Your task to perform on an android device: Open display settings Image 0: 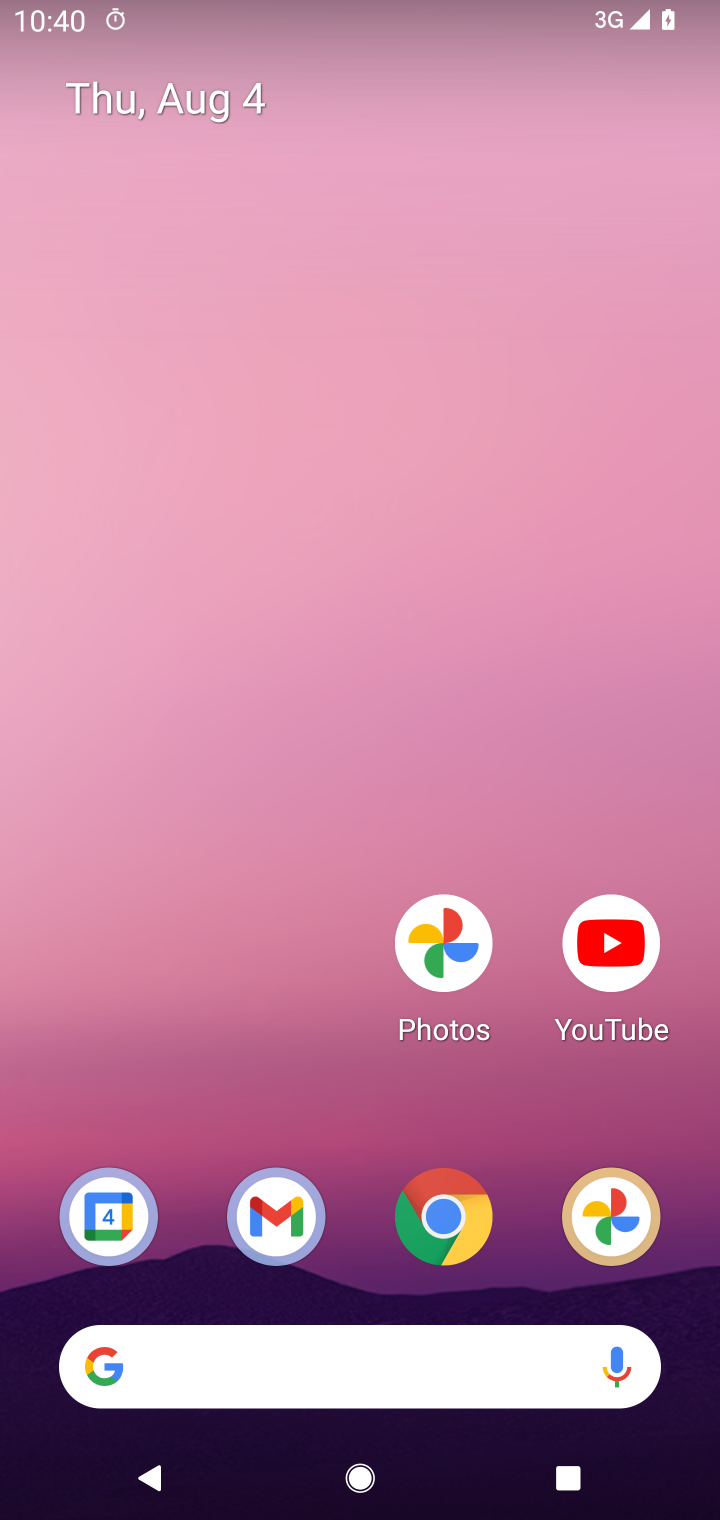
Step 0: drag from (367, 1178) to (374, 287)
Your task to perform on an android device: Open display settings Image 1: 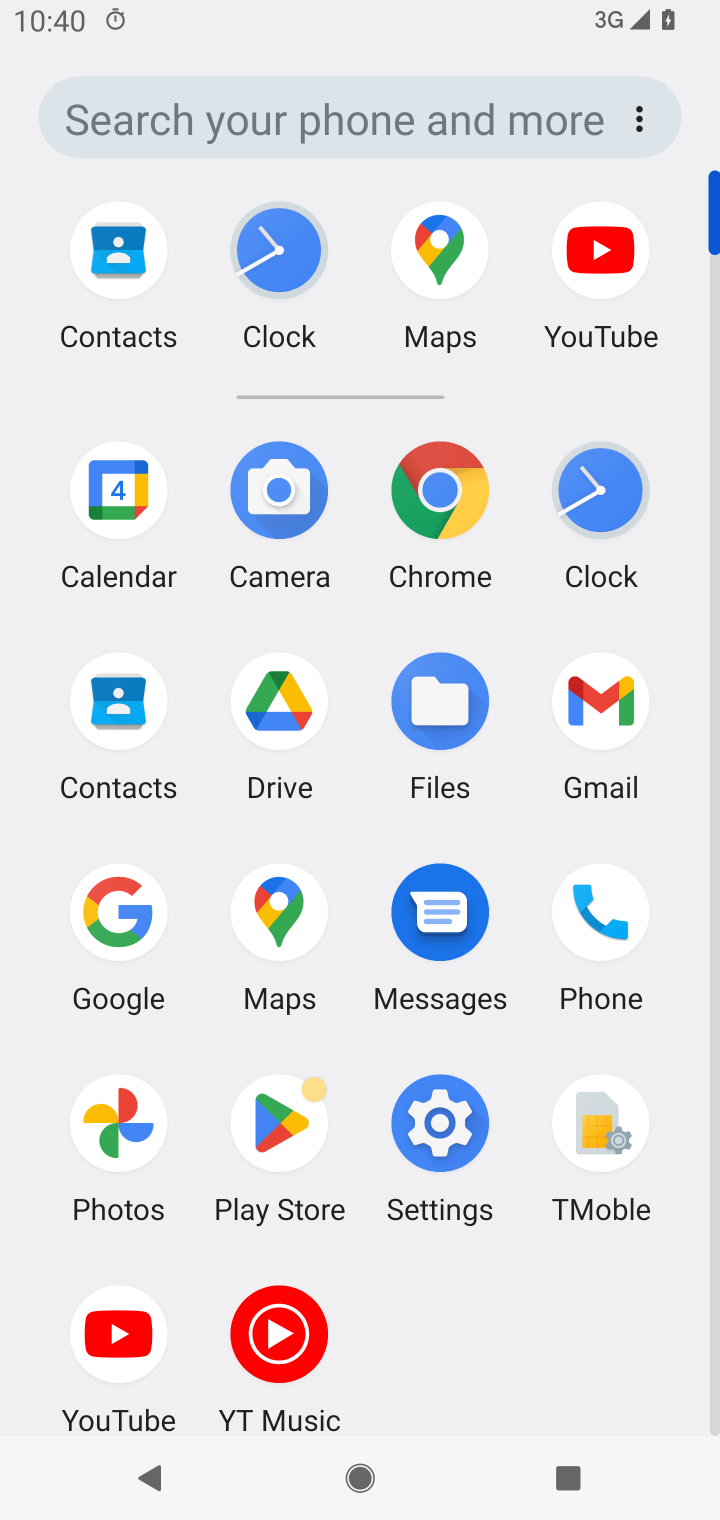
Step 1: click (452, 1136)
Your task to perform on an android device: Open display settings Image 2: 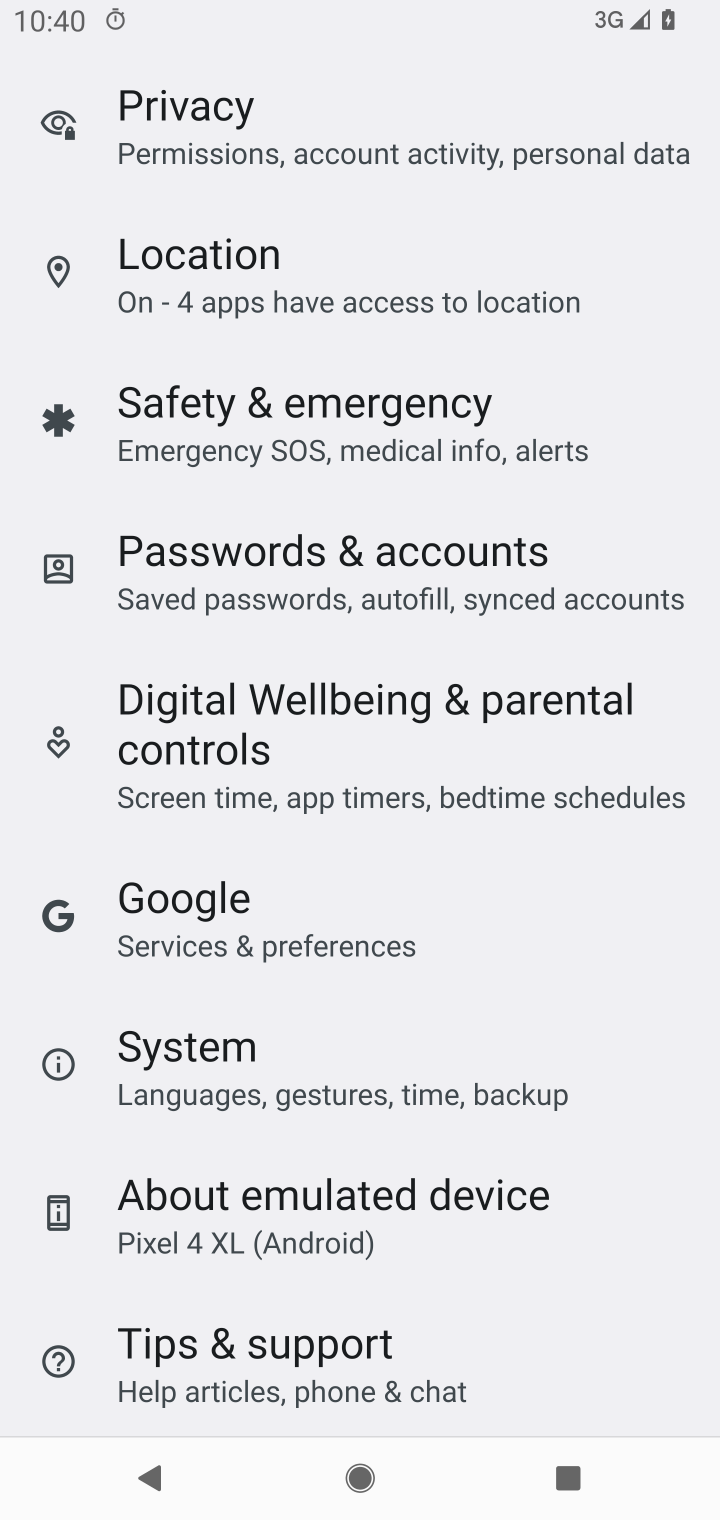
Step 2: drag from (259, 187) to (259, 1082)
Your task to perform on an android device: Open display settings Image 3: 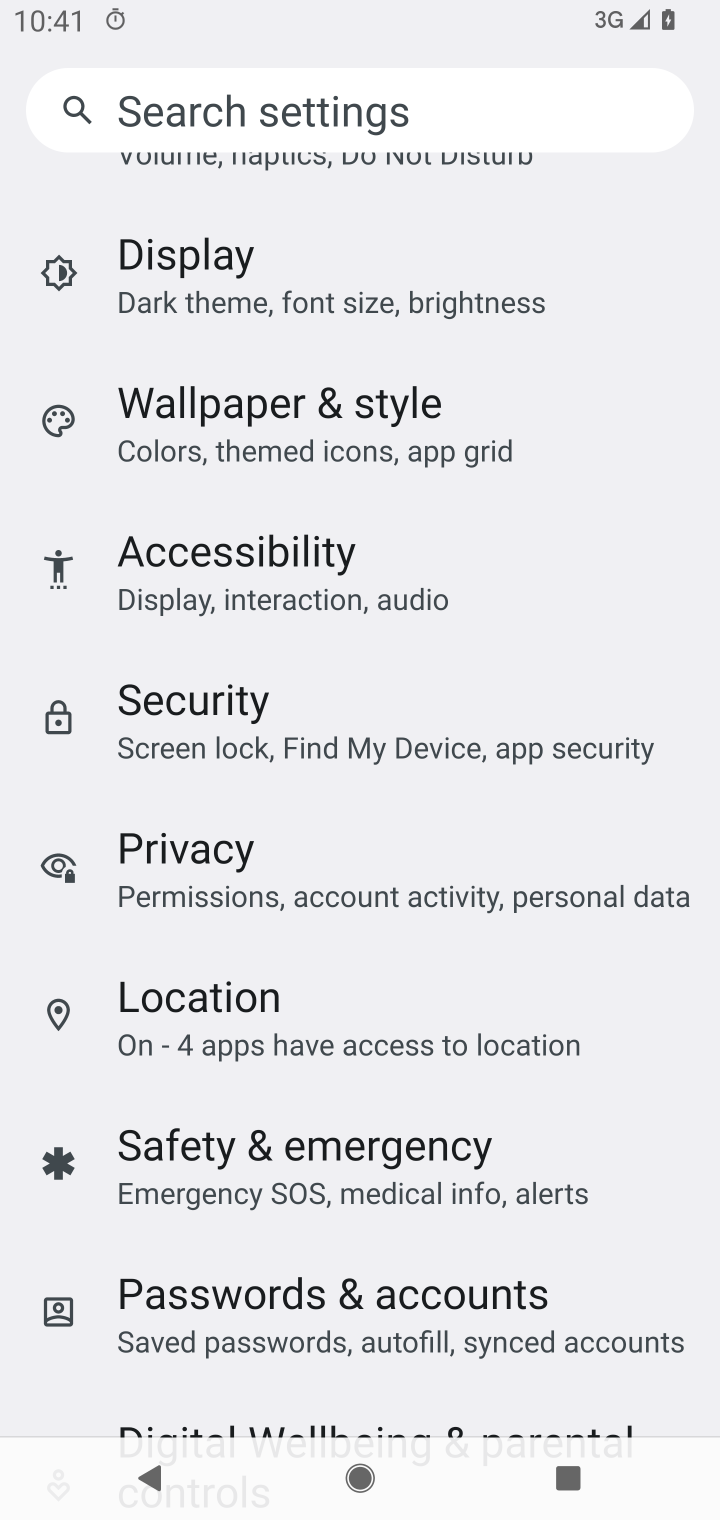
Step 3: click (179, 301)
Your task to perform on an android device: Open display settings Image 4: 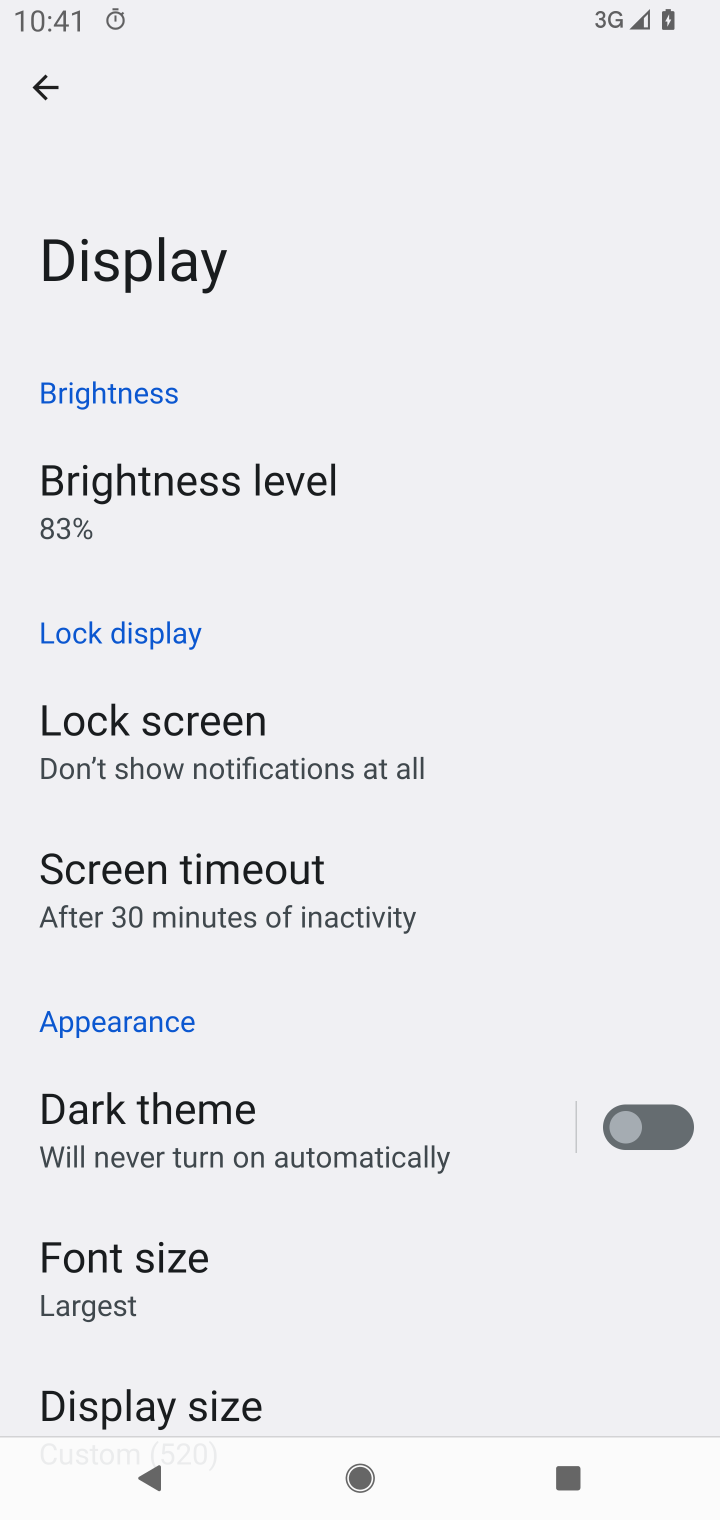
Step 4: task complete